Your task to perform on an android device: manage bookmarks in the chrome app Image 0: 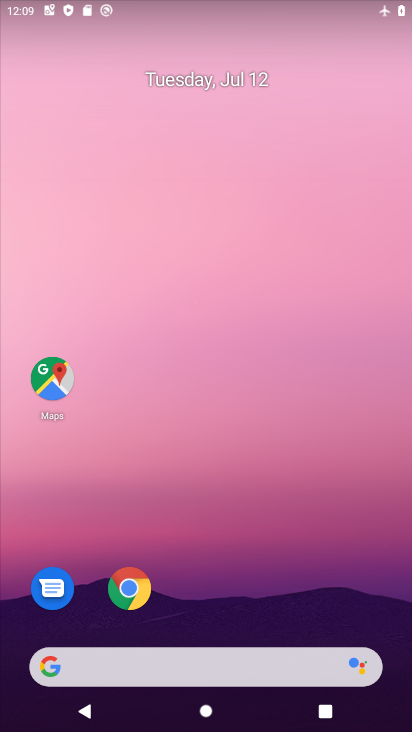
Step 0: drag from (244, 598) to (220, 48)
Your task to perform on an android device: manage bookmarks in the chrome app Image 1: 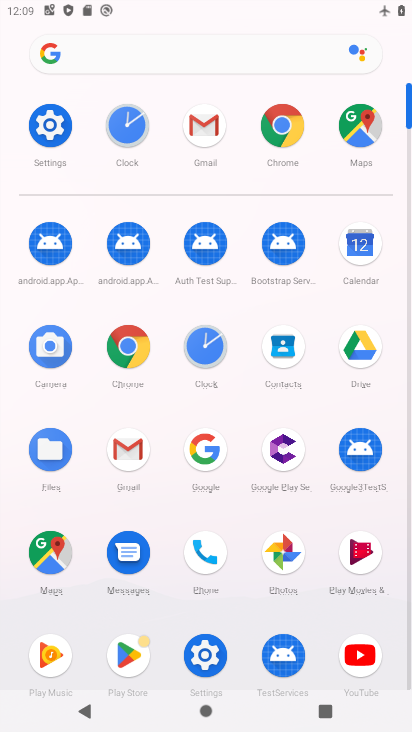
Step 1: click (286, 121)
Your task to perform on an android device: manage bookmarks in the chrome app Image 2: 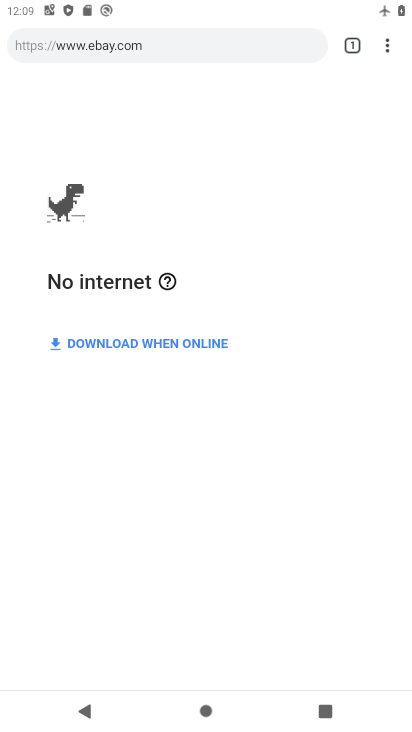
Step 2: click (387, 46)
Your task to perform on an android device: manage bookmarks in the chrome app Image 3: 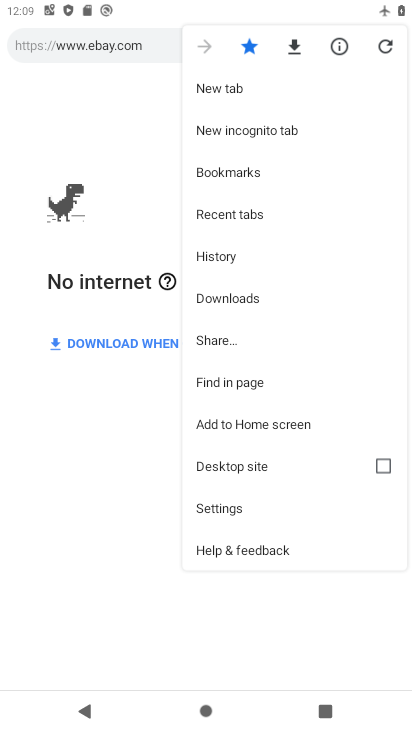
Step 3: click (250, 165)
Your task to perform on an android device: manage bookmarks in the chrome app Image 4: 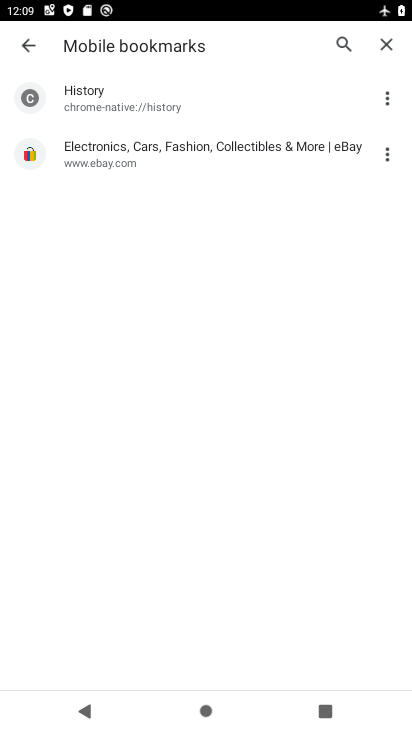
Step 4: click (388, 151)
Your task to perform on an android device: manage bookmarks in the chrome app Image 5: 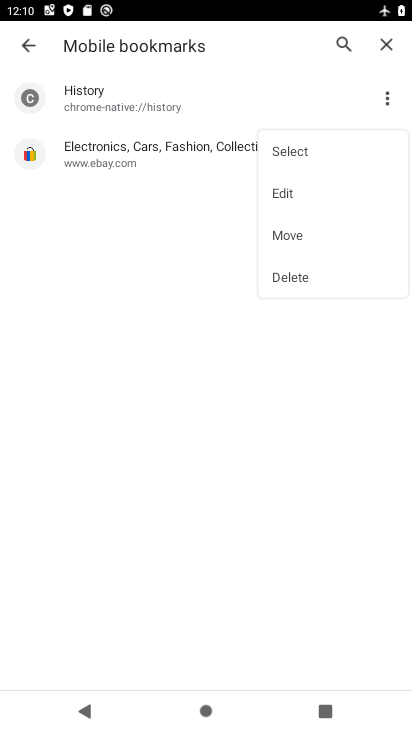
Step 5: click (294, 277)
Your task to perform on an android device: manage bookmarks in the chrome app Image 6: 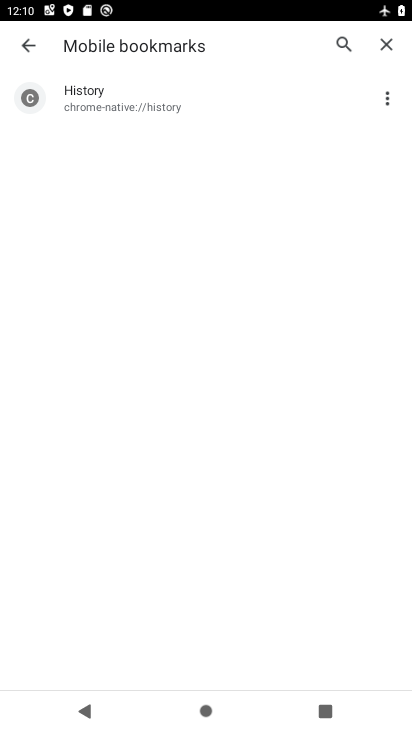
Step 6: task complete